Your task to perform on an android device: Search for seafood restaurants on Google Maps Image 0: 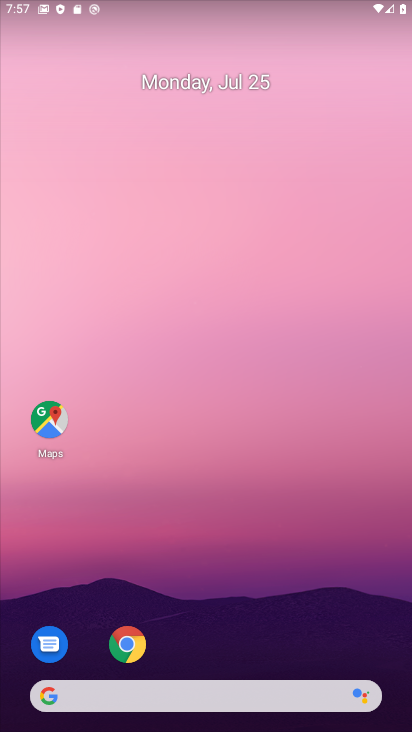
Step 0: drag from (210, 625) to (182, 115)
Your task to perform on an android device: Search for seafood restaurants on Google Maps Image 1: 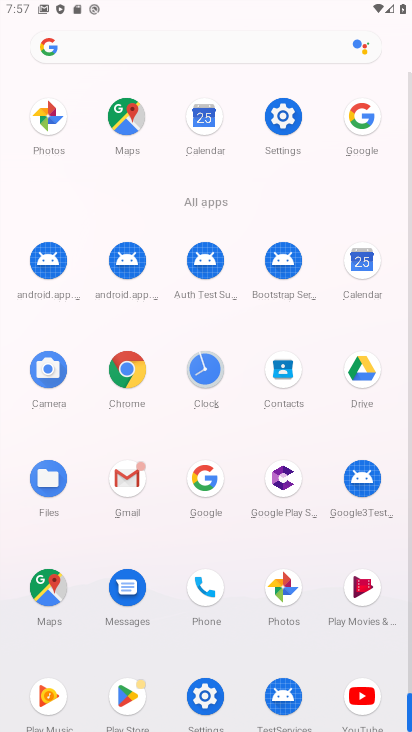
Step 1: click (34, 601)
Your task to perform on an android device: Search for seafood restaurants on Google Maps Image 2: 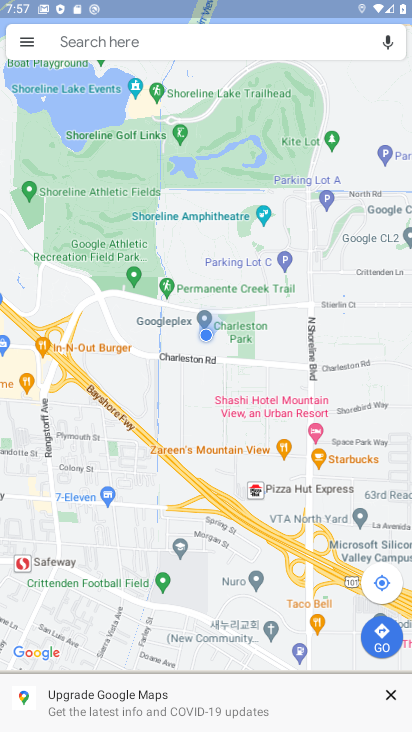
Step 2: click (134, 44)
Your task to perform on an android device: Search for seafood restaurants on Google Maps Image 3: 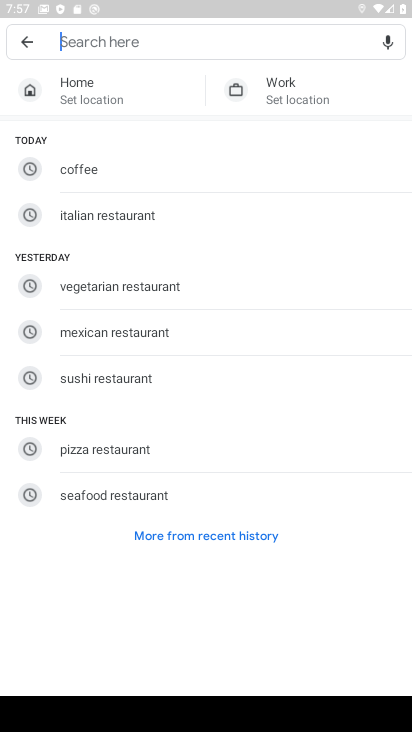
Step 3: click (126, 500)
Your task to perform on an android device: Search for seafood restaurants on Google Maps Image 4: 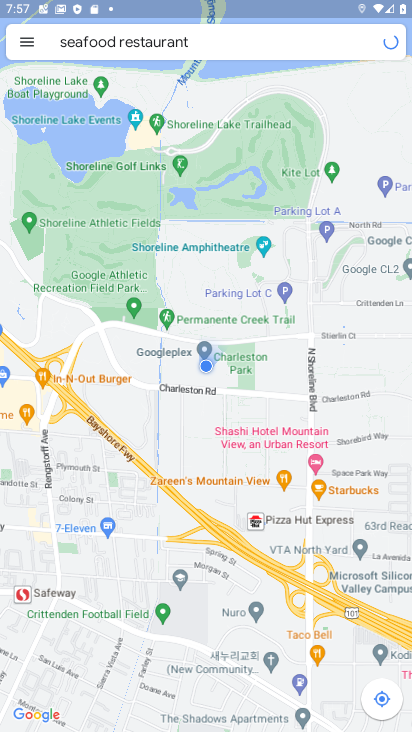
Step 4: task complete